Your task to perform on an android device: delete location history Image 0: 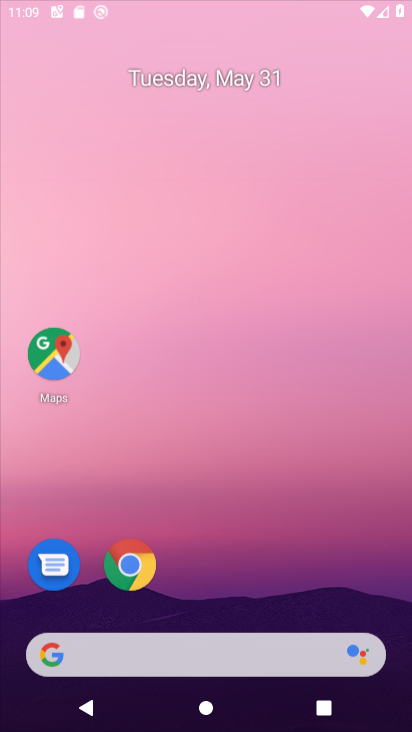
Step 0: click (145, 565)
Your task to perform on an android device: delete location history Image 1: 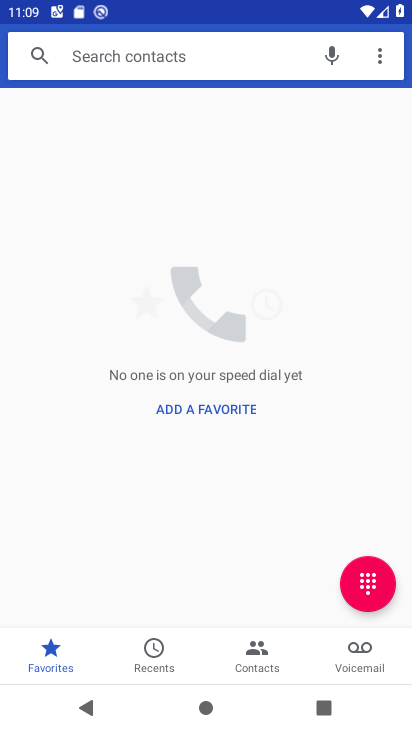
Step 1: press home button
Your task to perform on an android device: delete location history Image 2: 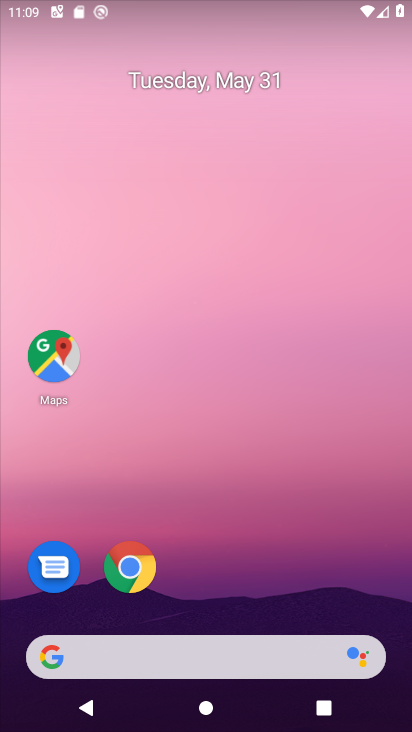
Step 2: click (46, 344)
Your task to perform on an android device: delete location history Image 3: 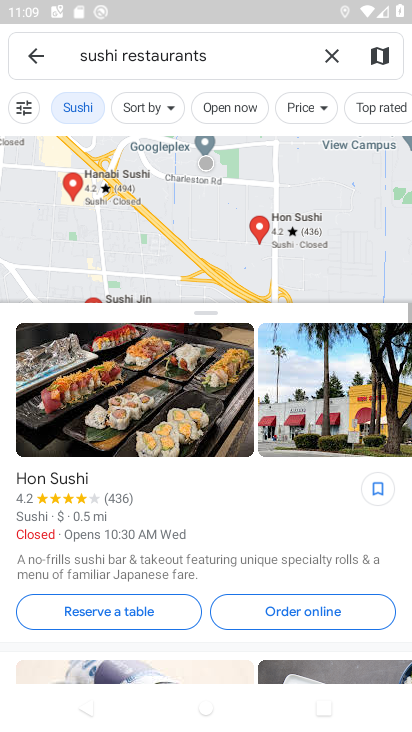
Step 3: click (40, 58)
Your task to perform on an android device: delete location history Image 4: 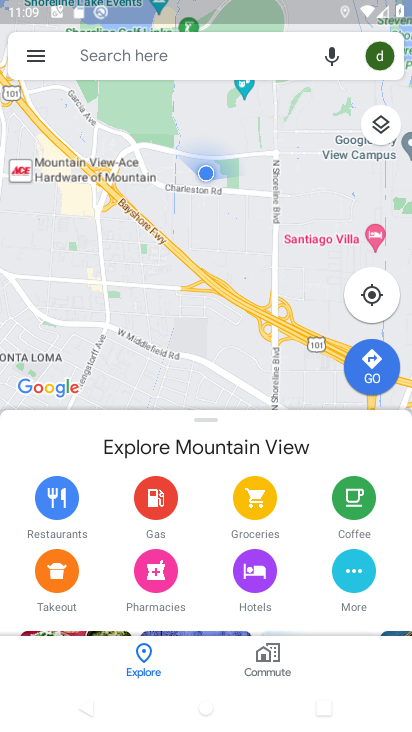
Step 4: click (40, 58)
Your task to perform on an android device: delete location history Image 5: 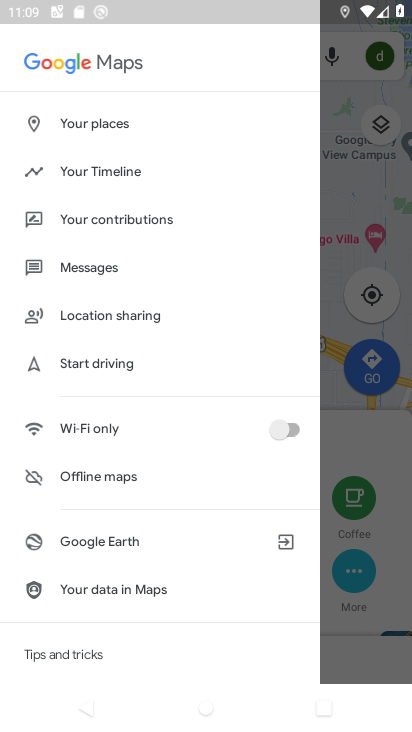
Step 5: drag from (131, 610) to (189, 175)
Your task to perform on an android device: delete location history Image 6: 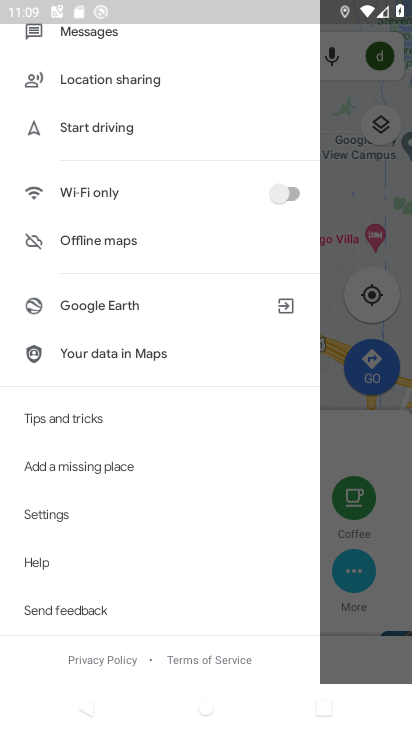
Step 6: drag from (231, 56) to (325, 640)
Your task to perform on an android device: delete location history Image 7: 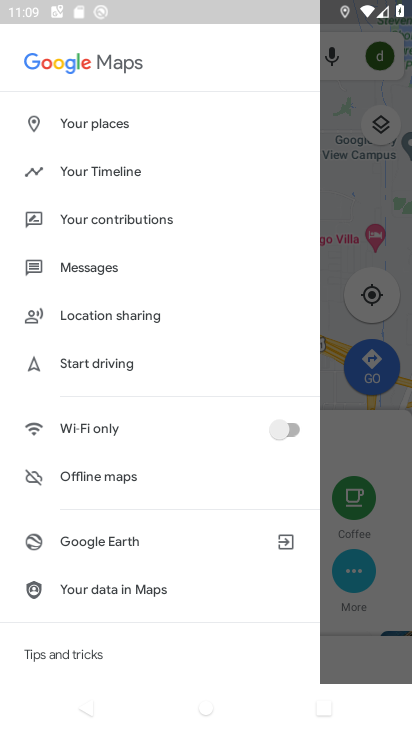
Step 7: drag from (155, 72) to (230, 589)
Your task to perform on an android device: delete location history Image 8: 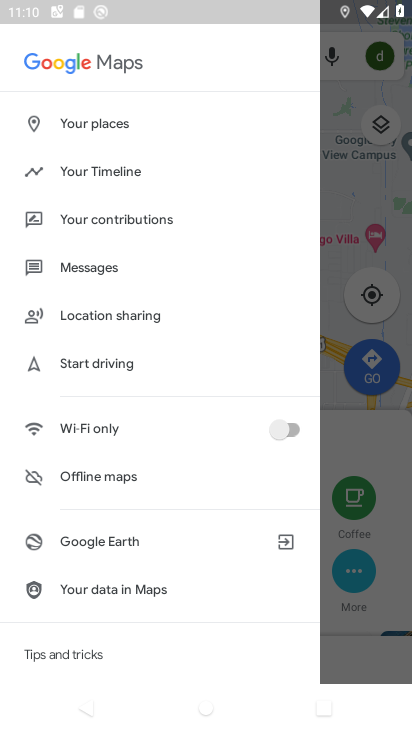
Step 8: drag from (160, 90) to (217, 554)
Your task to perform on an android device: delete location history Image 9: 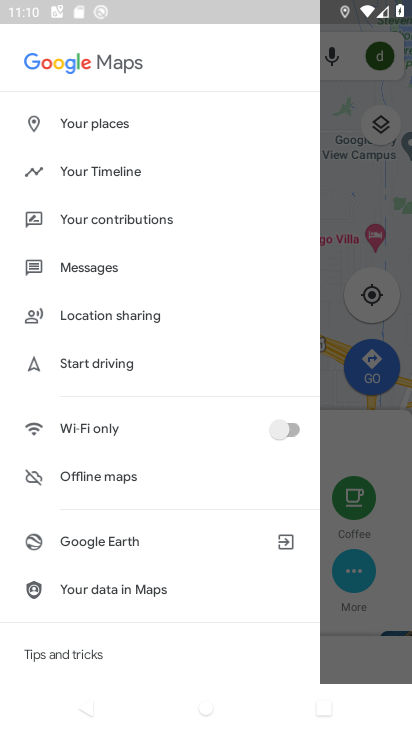
Step 9: drag from (164, 126) to (193, 554)
Your task to perform on an android device: delete location history Image 10: 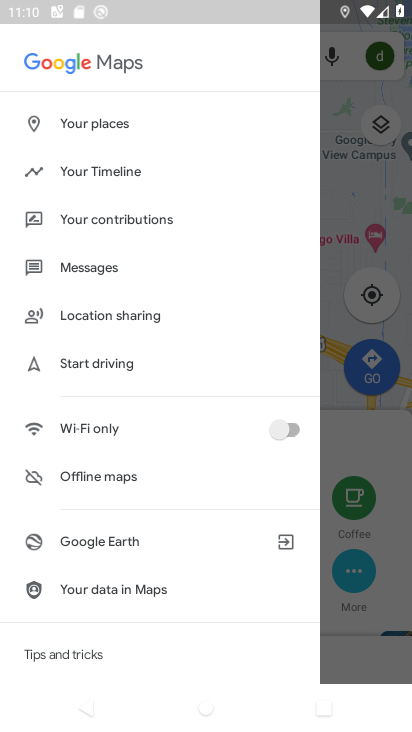
Step 10: click (103, 168)
Your task to perform on an android device: delete location history Image 11: 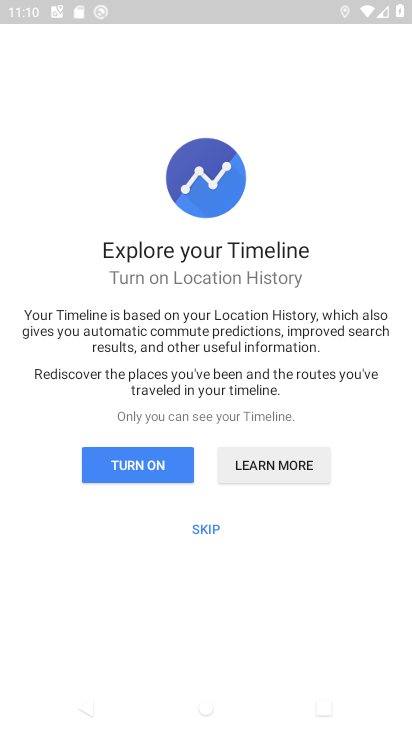
Step 11: click (171, 475)
Your task to perform on an android device: delete location history Image 12: 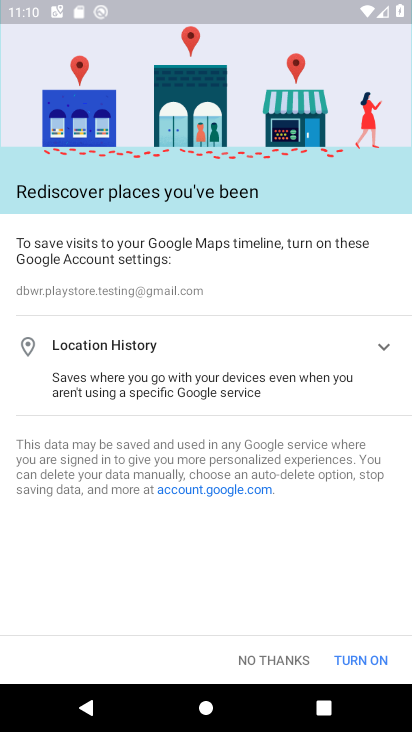
Step 12: click (190, 152)
Your task to perform on an android device: delete location history Image 13: 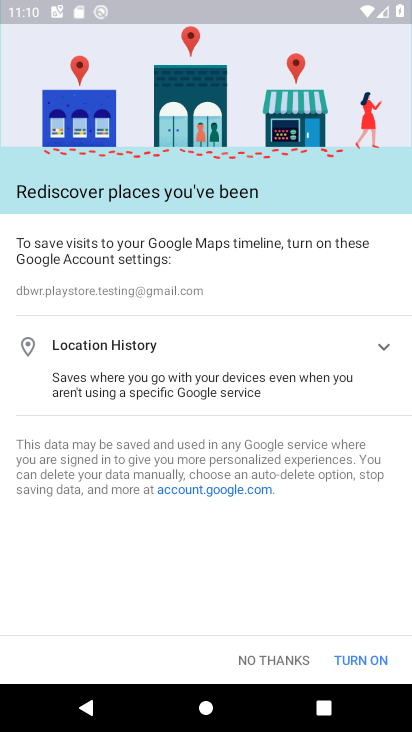
Step 13: press back button
Your task to perform on an android device: delete location history Image 14: 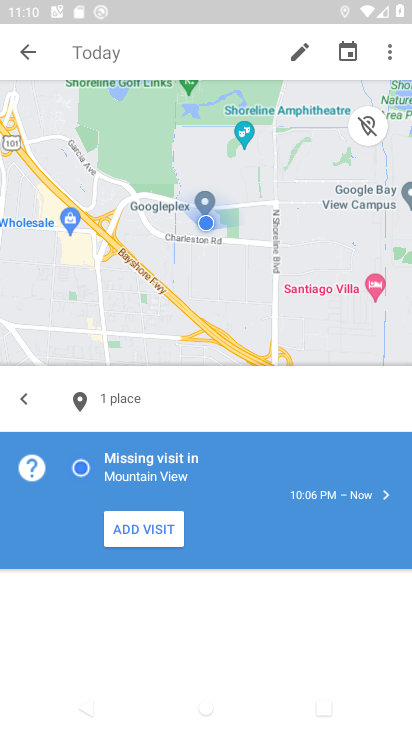
Step 14: click (394, 52)
Your task to perform on an android device: delete location history Image 15: 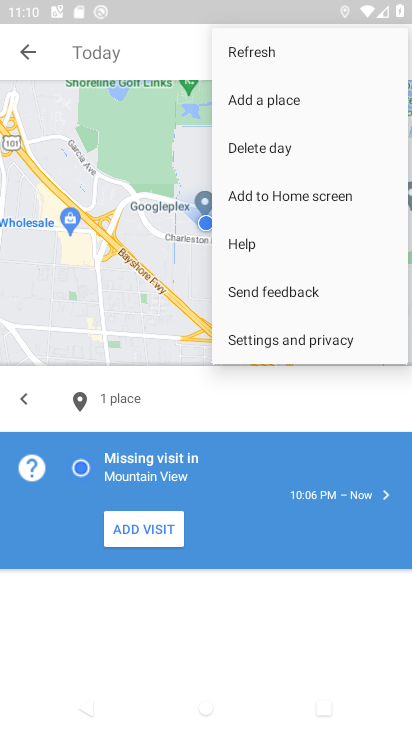
Step 15: click (270, 332)
Your task to perform on an android device: delete location history Image 16: 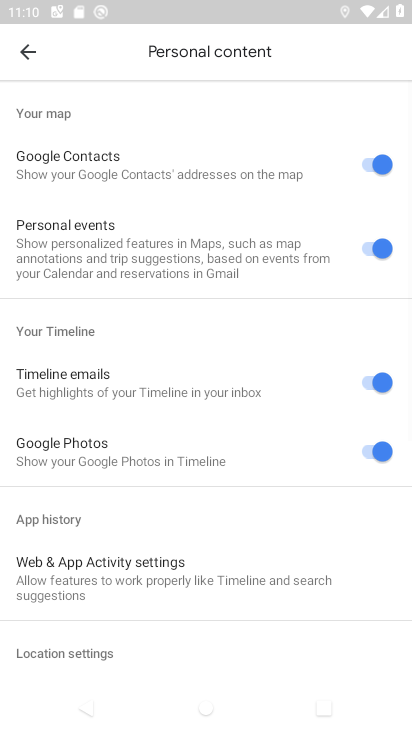
Step 16: drag from (134, 621) to (165, 184)
Your task to perform on an android device: delete location history Image 17: 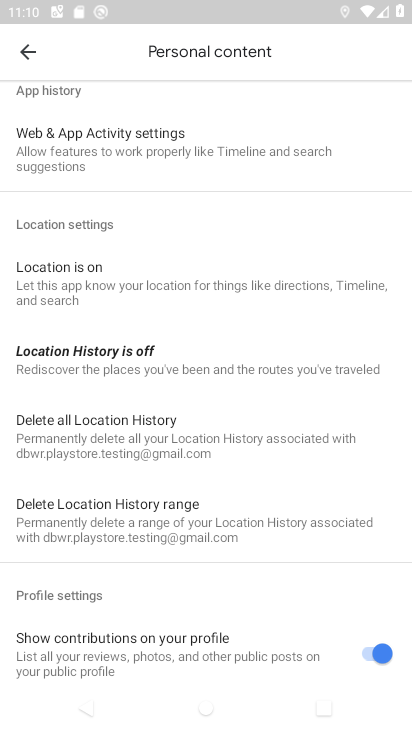
Step 17: click (141, 447)
Your task to perform on an android device: delete location history Image 18: 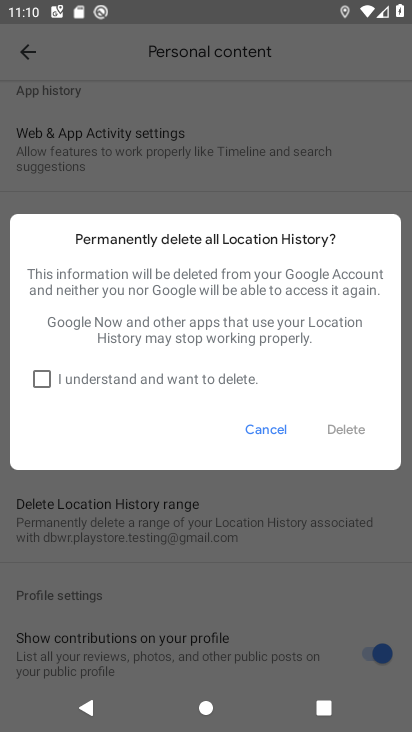
Step 18: click (45, 381)
Your task to perform on an android device: delete location history Image 19: 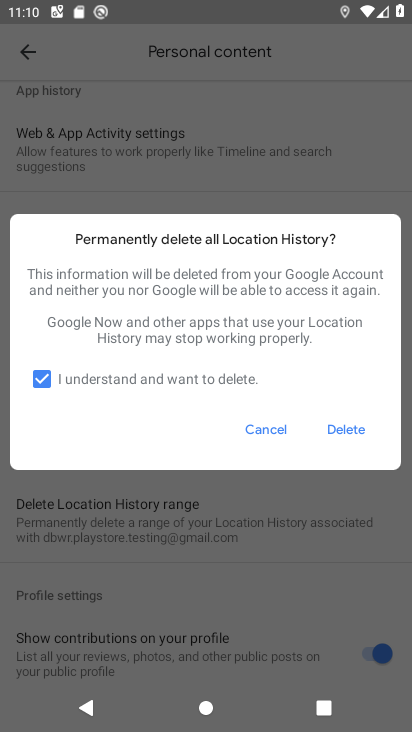
Step 19: click (347, 439)
Your task to perform on an android device: delete location history Image 20: 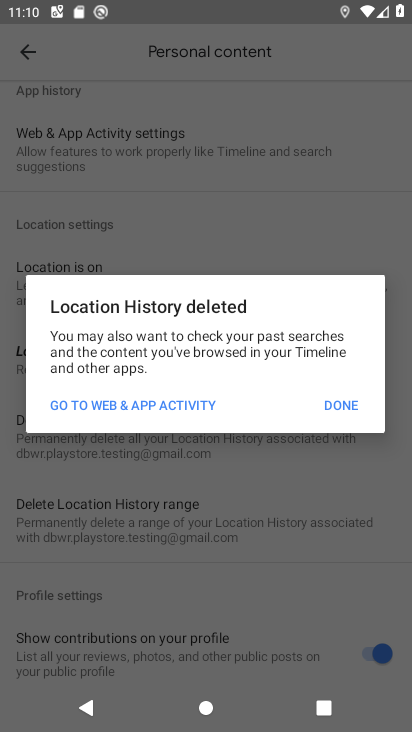
Step 20: click (321, 398)
Your task to perform on an android device: delete location history Image 21: 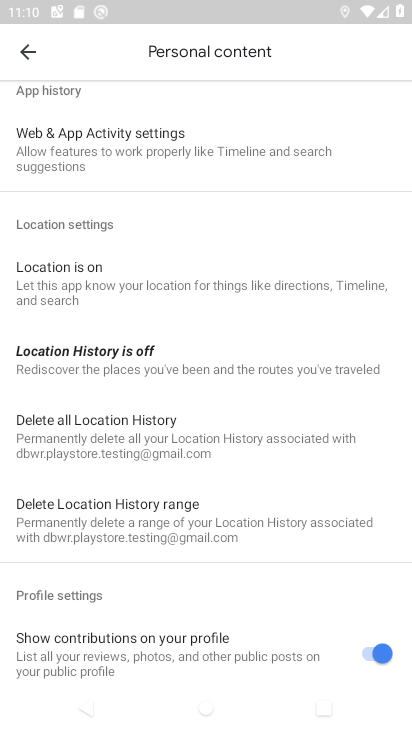
Step 21: task complete